Your task to perform on an android device: Open Google Chrome and click the shortcut for Amazon.com Image 0: 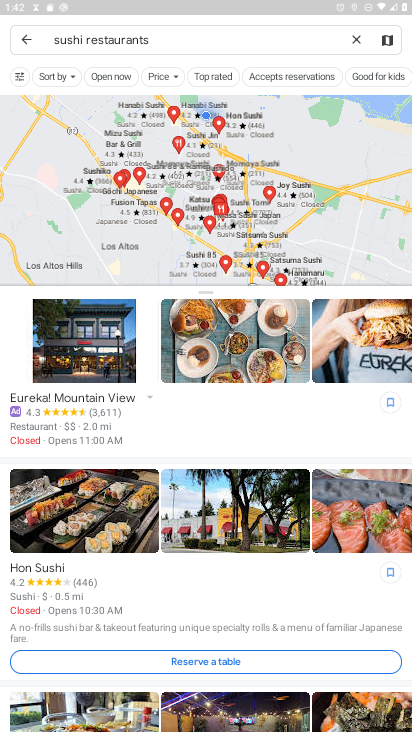
Step 0: press home button
Your task to perform on an android device: Open Google Chrome and click the shortcut for Amazon.com Image 1: 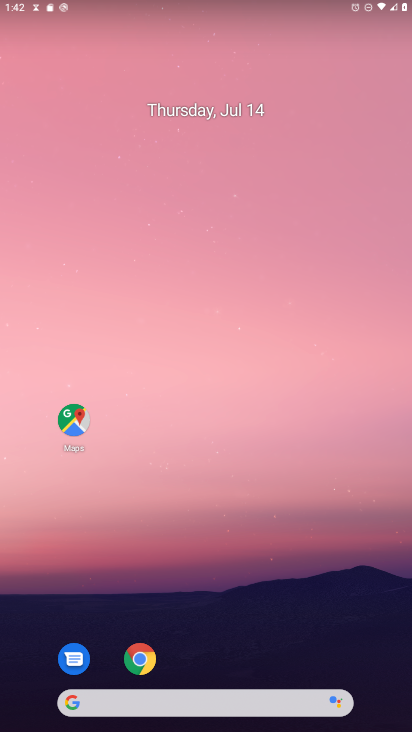
Step 1: click (150, 701)
Your task to perform on an android device: Open Google Chrome and click the shortcut for Amazon.com Image 2: 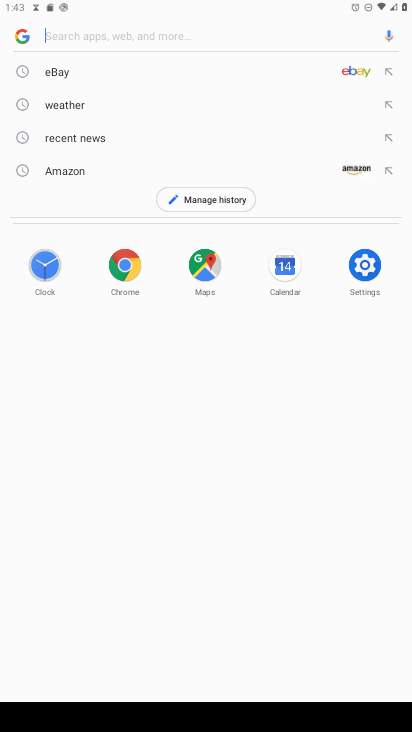
Step 2: click (350, 166)
Your task to perform on an android device: Open Google Chrome and click the shortcut for Amazon.com Image 3: 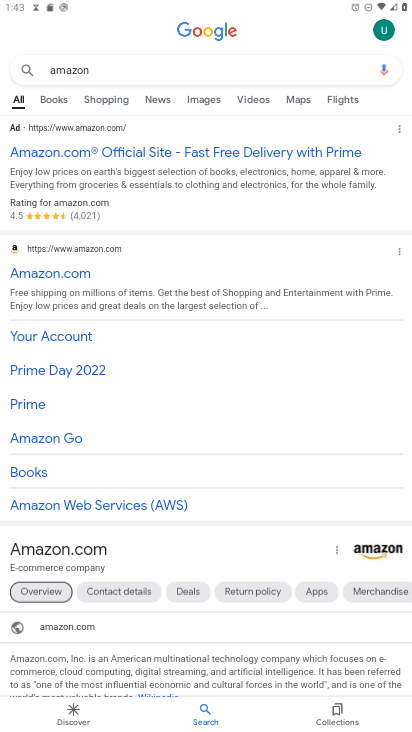
Step 3: task complete